Your task to perform on an android device: Clear all items from cart on newegg. Search for lg ultragear on newegg, select the first entry, and add it to the cart. Image 0: 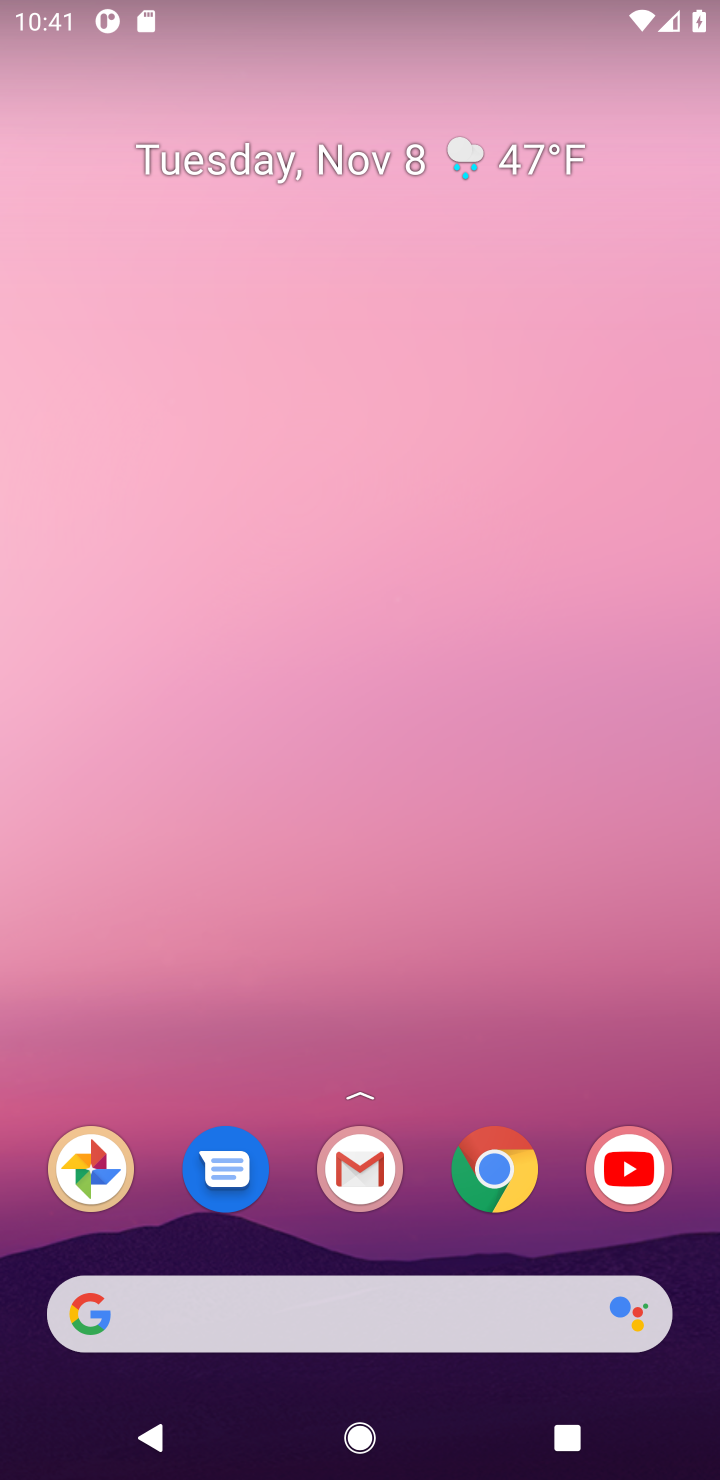
Step 0: click (499, 1165)
Your task to perform on an android device: Clear all items from cart on newegg. Search for lg ultragear on newegg, select the first entry, and add it to the cart. Image 1: 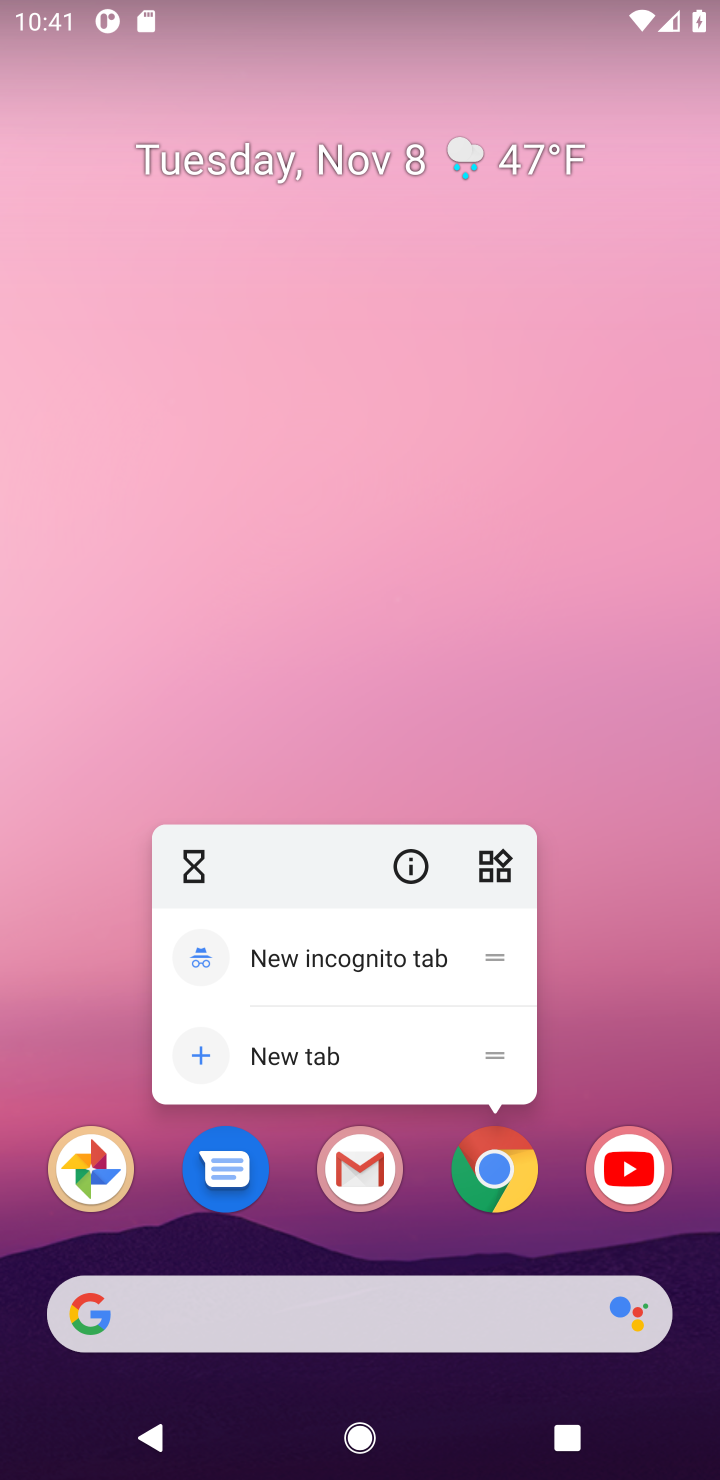
Step 1: click (499, 1165)
Your task to perform on an android device: Clear all items from cart on newegg. Search for lg ultragear on newegg, select the first entry, and add it to the cart. Image 2: 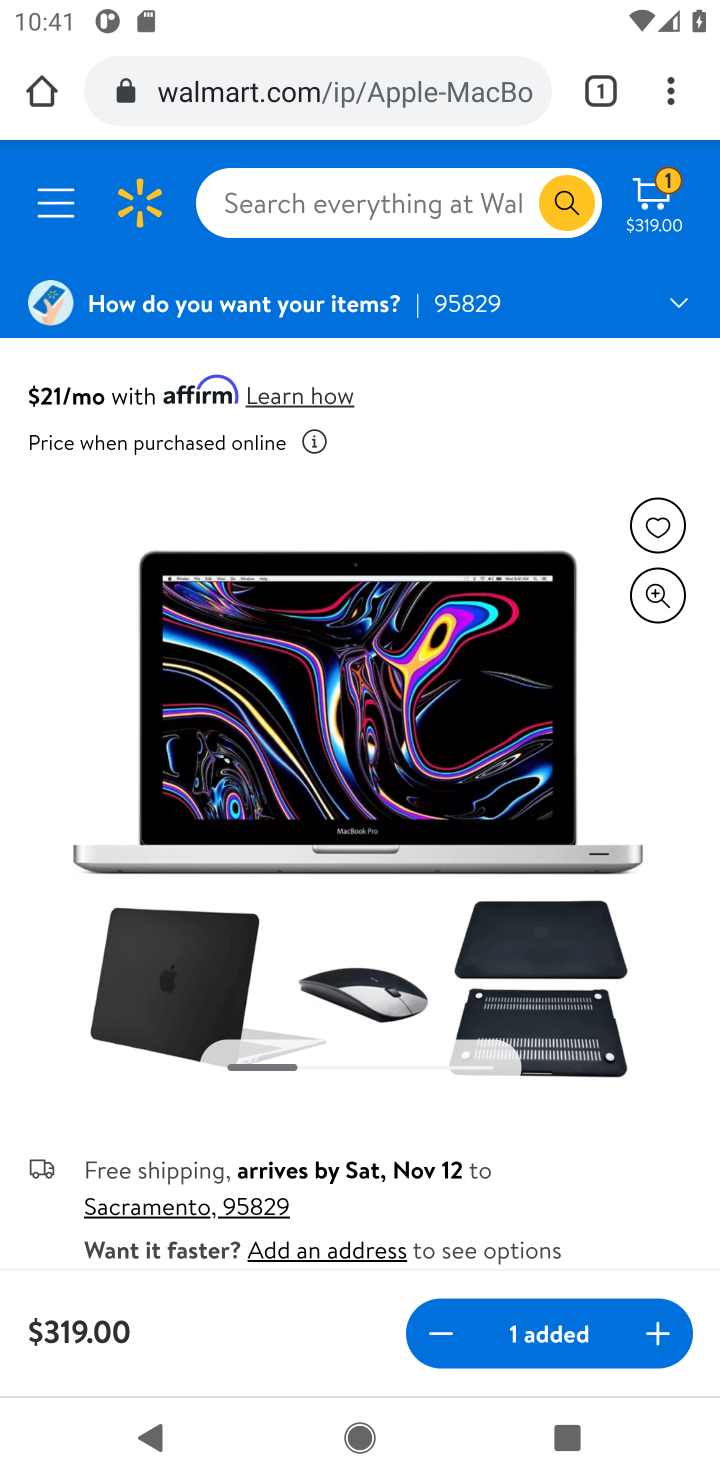
Step 2: click (471, 83)
Your task to perform on an android device: Clear all items from cart on newegg. Search for lg ultragear on newegg, select the first entry, and add it to the cart. Image 3: 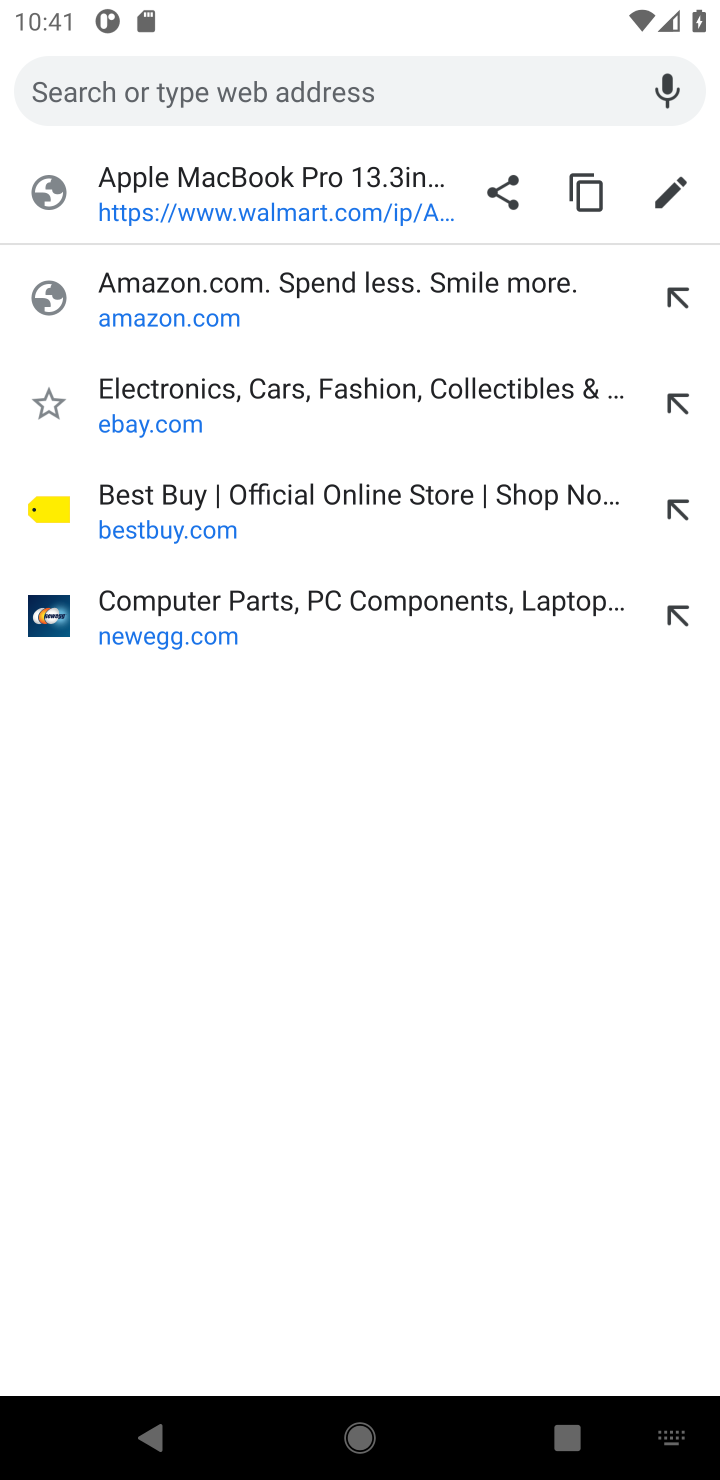
Step 3: press enter
Your task to perform on an android device: Clear all items from cart on newegg. Search for lg ultragear on newegg, select the first entry, and add it to the cart. Image 4: 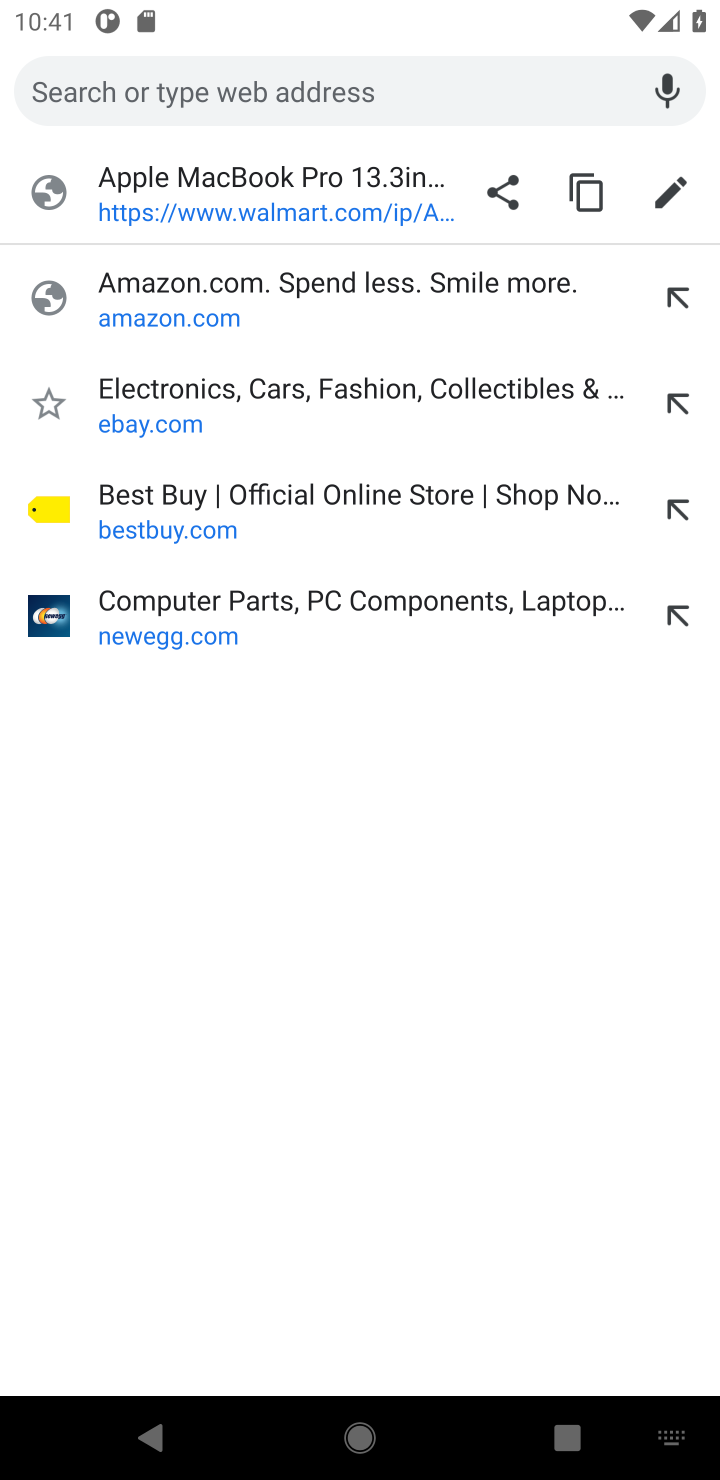
Step 4: type "newegg"
Your task to perform on an android device: Clear all items from cart on newegg. Search for lg ultragear on newegg, select the first entry, and add it to the cart. Image 5: 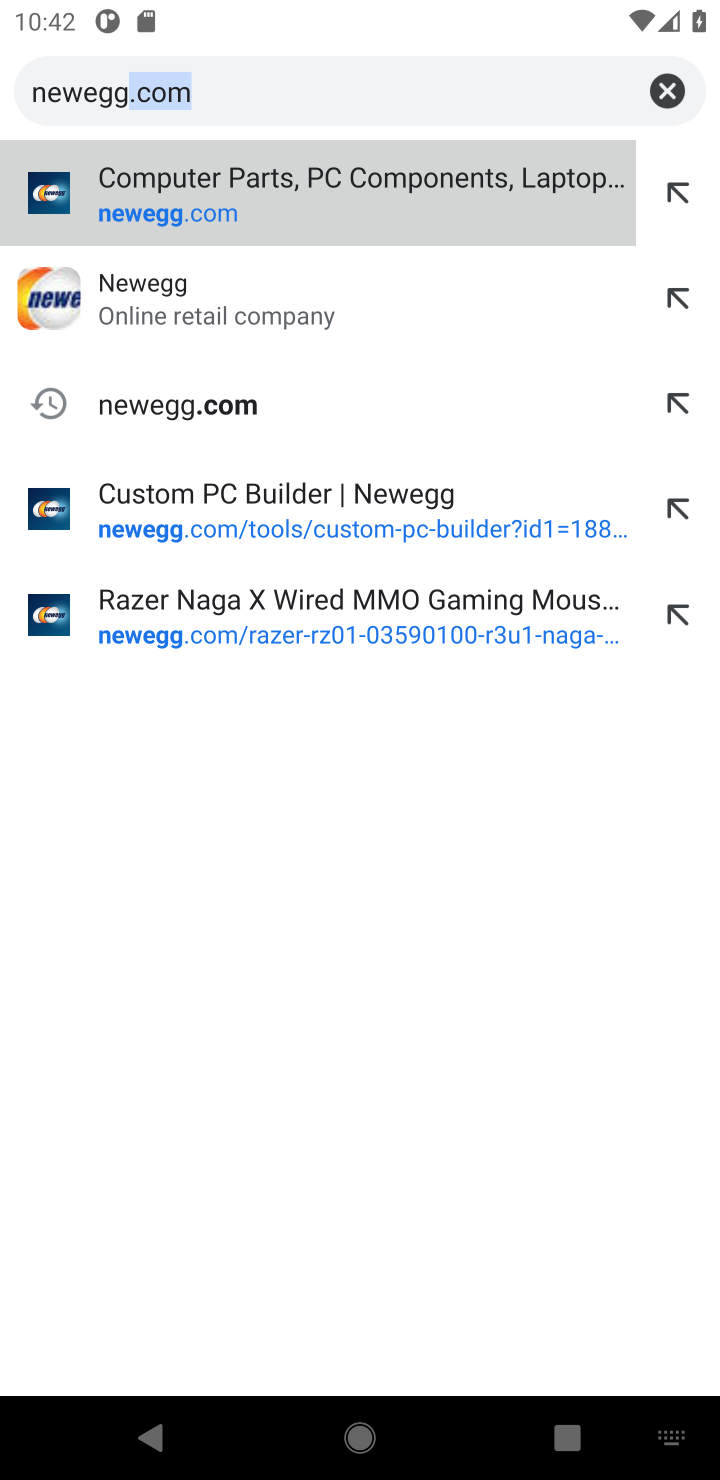
Step 5: click (405, 65)
Your task to perform on an android device: Clear all items from cart on newegg. Search for lg ultragear on newegg, select the first entry, and add it to the cart. Image 6: 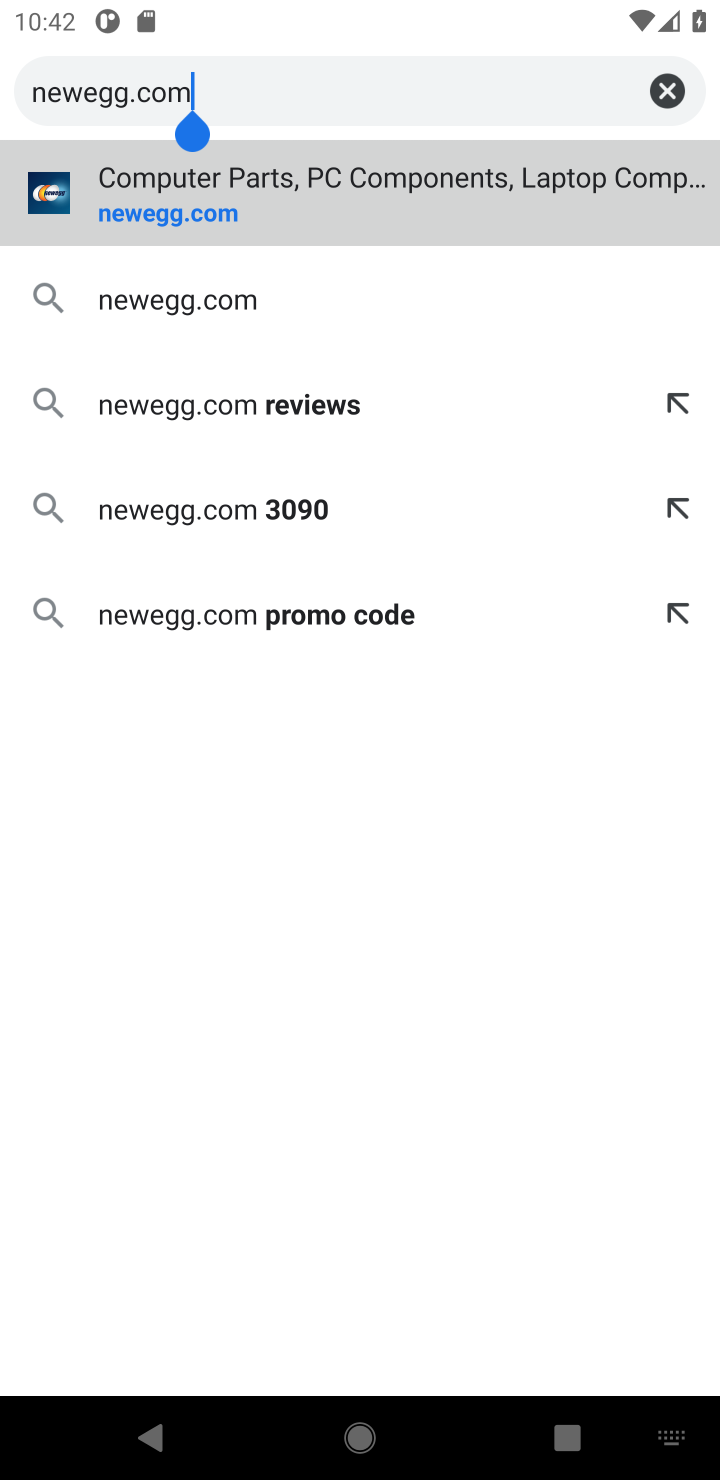
Step 6: click (214, 297)
Your task to perform on an android device: Clear all items from cart on newegg. Search for lg ultragear on newegg, select the first entry, and add it to the cart. Image 7: 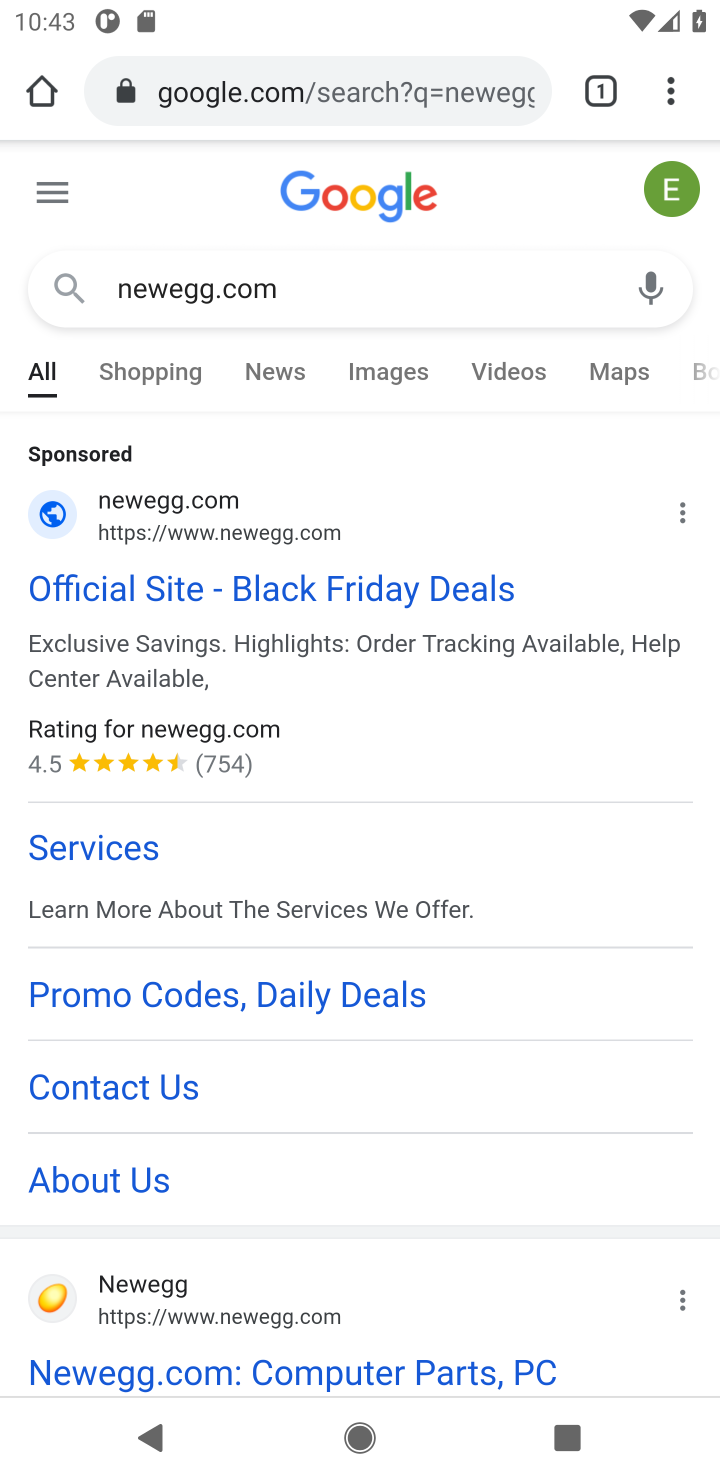
Step 7: click (219, 533)
Your task to perform on an android device: Clear all items from cart on newegg. Search for lg ultragear on newegg, select the first entry, and add it to the cart. Image 8: 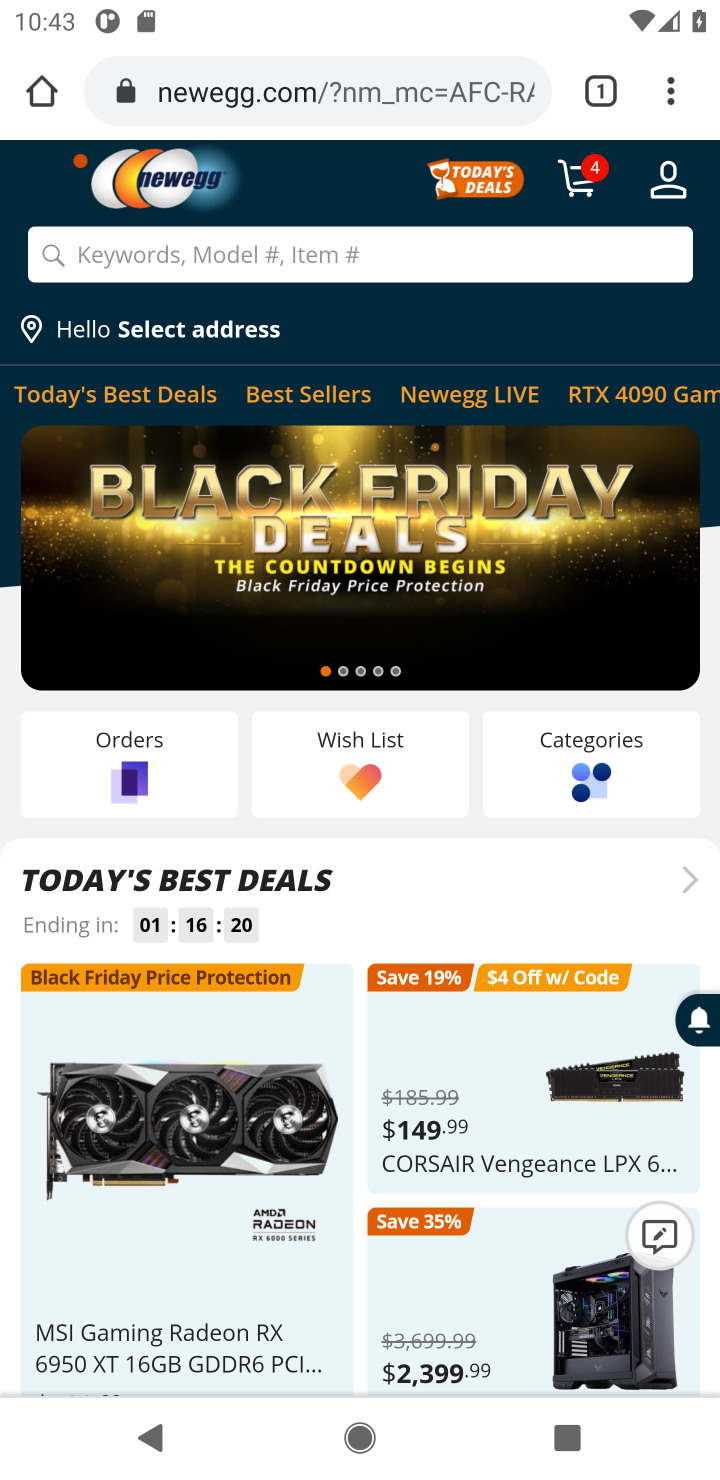
Step 8: click (572, 170)
Your task to perform on an android device: Clear all items from cart on newegg. Search for lg ultragear on newegg, select the first entry, and add it to the cart. Image 9: 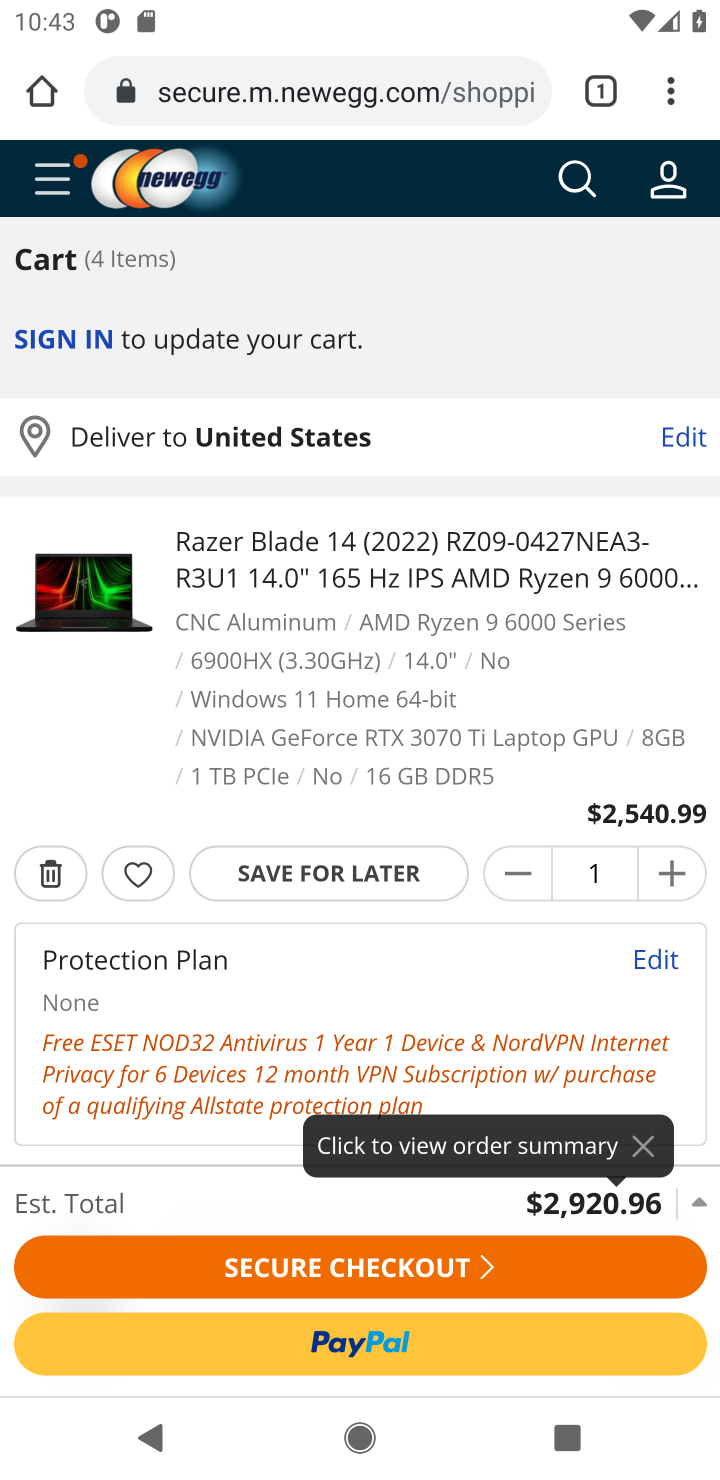
Step 9: click (39, 866)
Your task to perform on an android device: Clear all items from cart on newegg. Search for lg ultragear on newegg, select the first entry, and add it to the cart. Image 10: 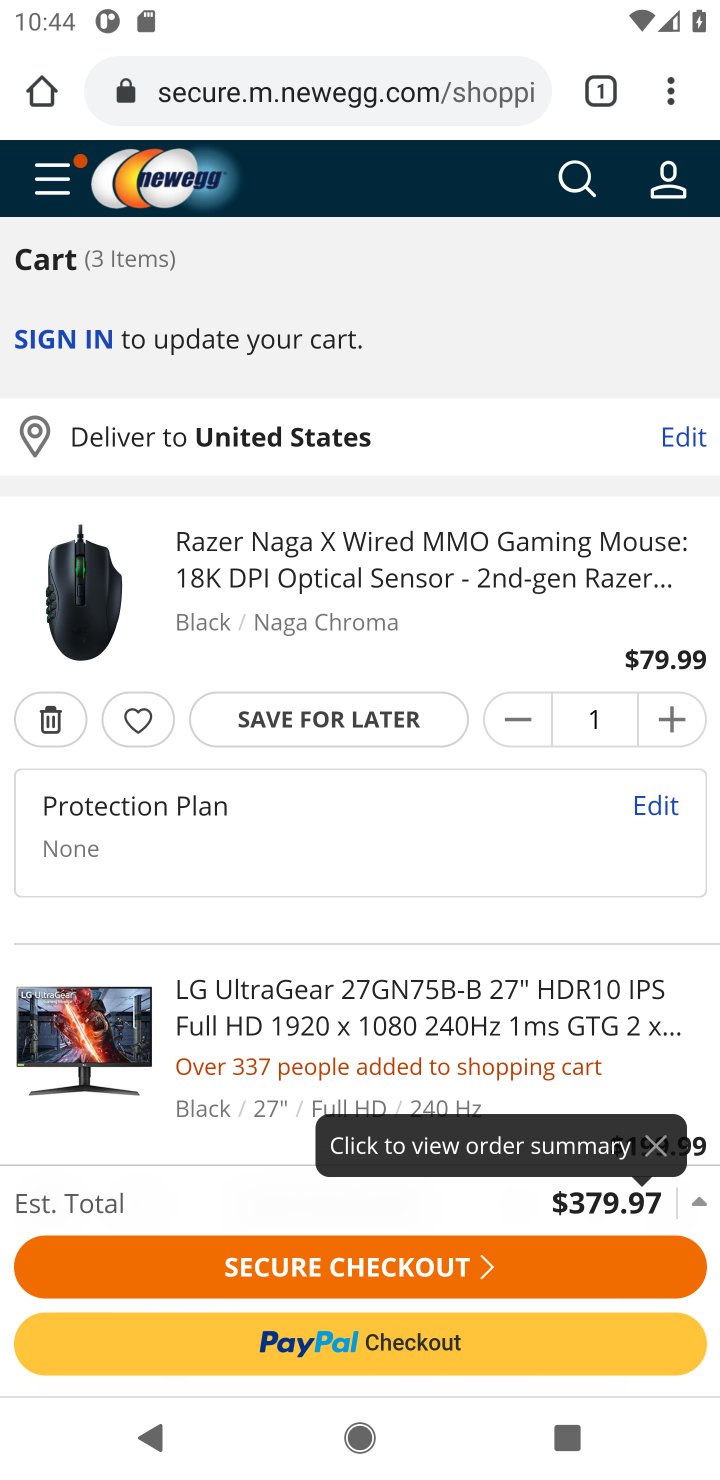
Step 10: click (566, 170)
Your task to perform on an android device: Clear all items from cart on newegg. Search for lg ultragear on newegg, select the first entry, and add it to the cart. Image 11: 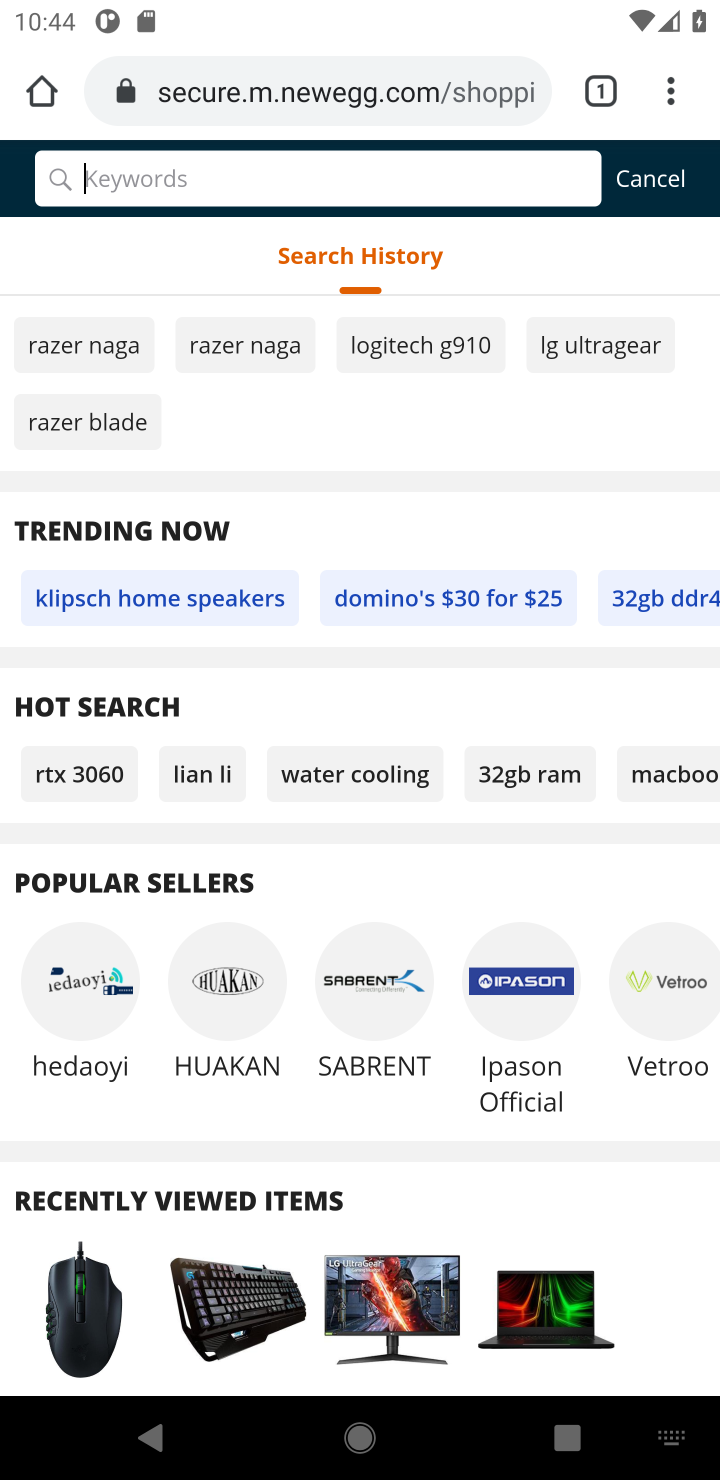
Step 11: type "lg ultragear"
Your task to perform on an android device: Clear all items from cart on newegg. Search for lg ultragear on newegg, select the first entry, and add it to the cart. Image 12: 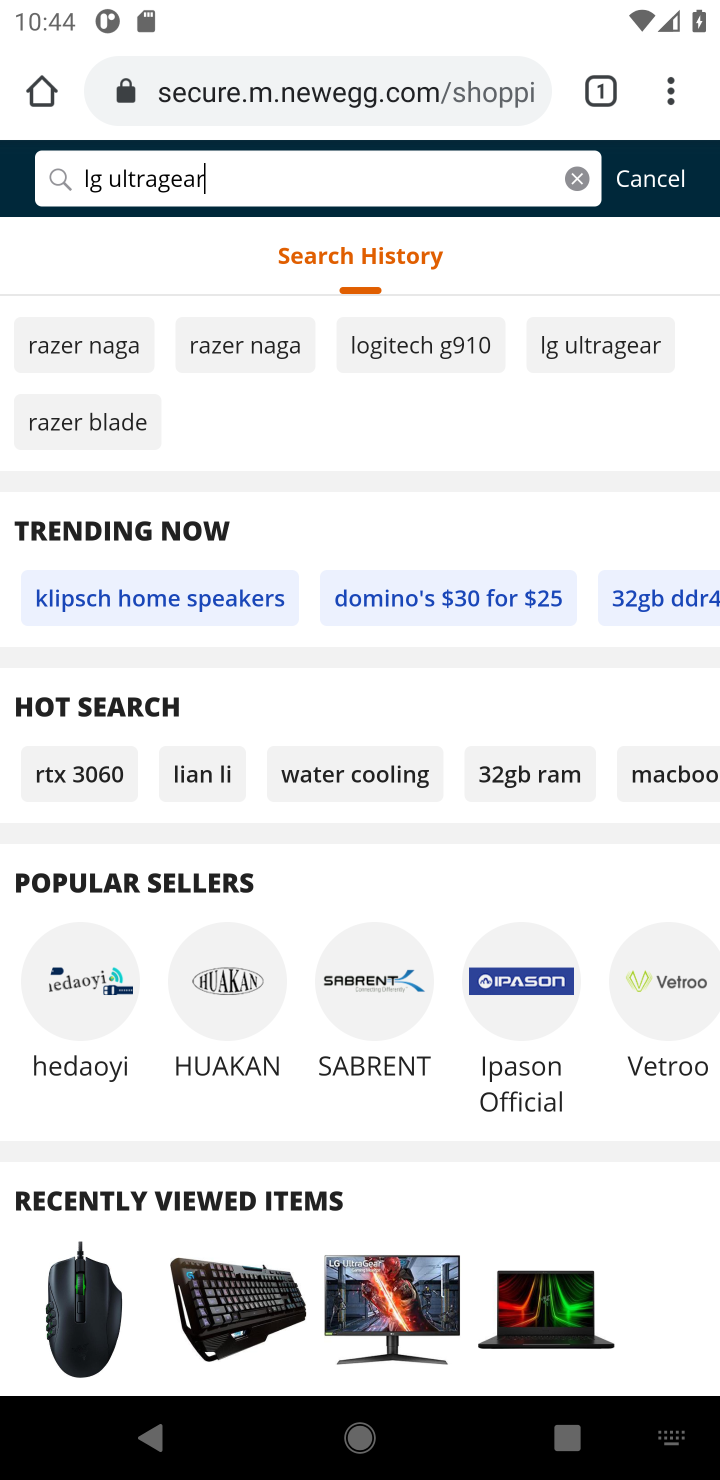
Step 12: press enter
Your task to perform on an android device: Clear all items from cart on newegg. Search for lg ultragear on newegg, select the first entry, and add it to the cart. Image 13: 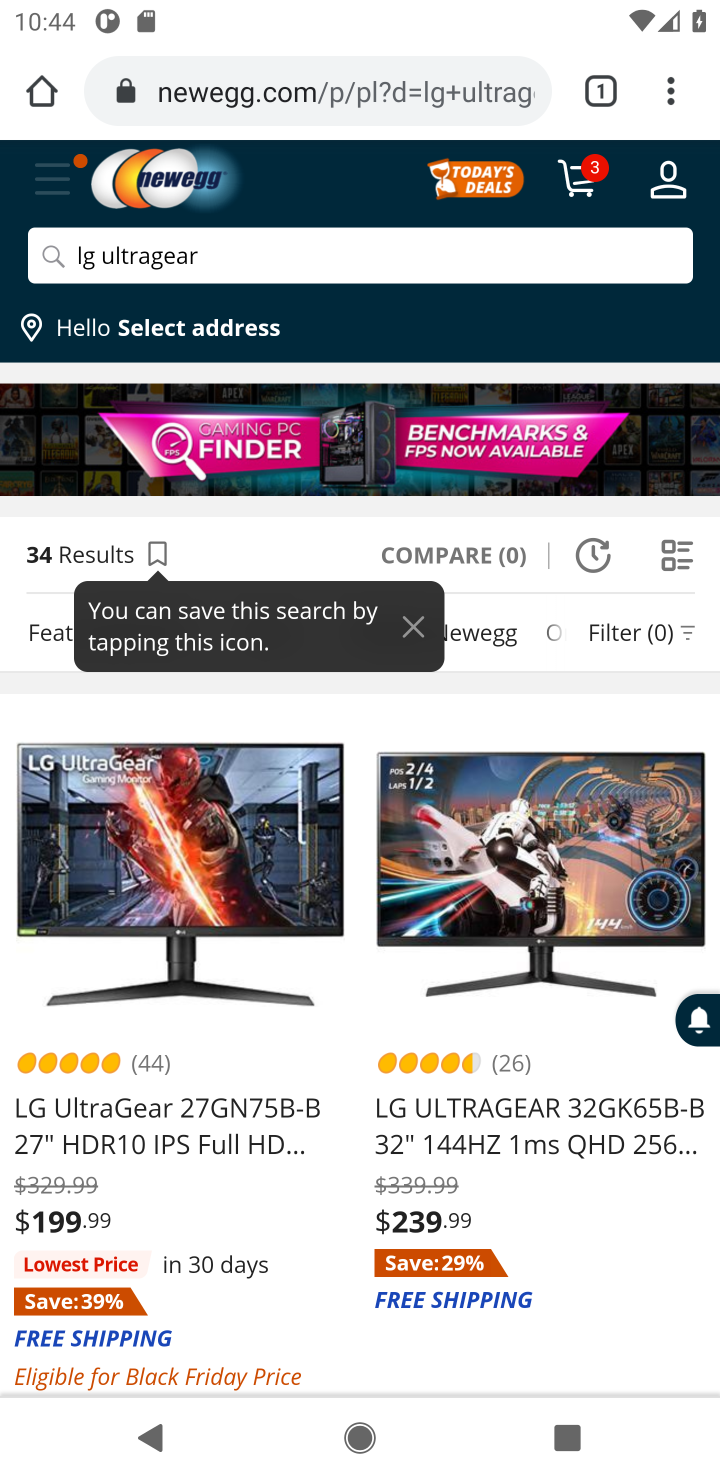
Step 13: click (238, 839)
Your task to perform on an android device: Clear all items from cart on newegg. Search for lg ultragear on newegg, select the first entry, and add it to the cart. Image 14: 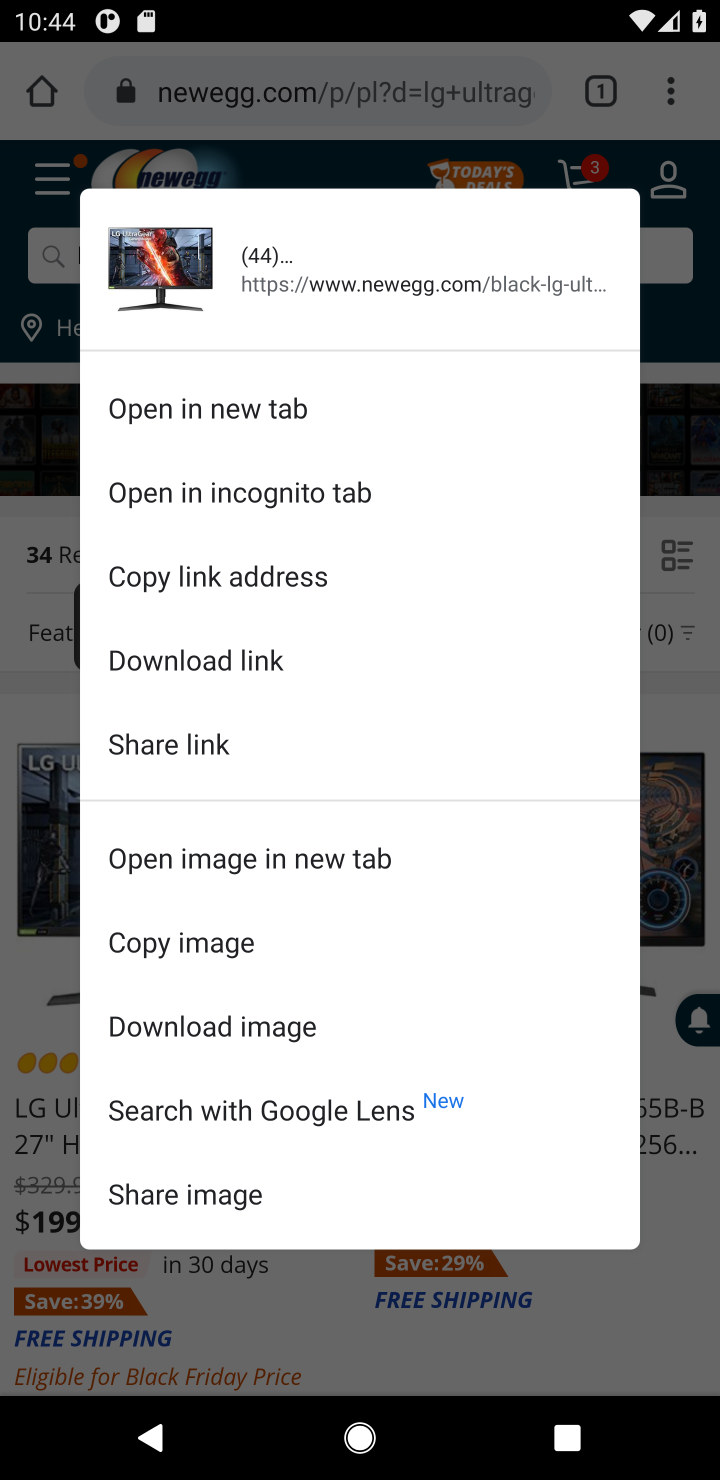
Step 14: click (55, 827)
Your task to perform on an android device: Clear all items from cart on newegg. Search for lg ultragear on newegg, select the first entry, and add it to the cart. Image 15: 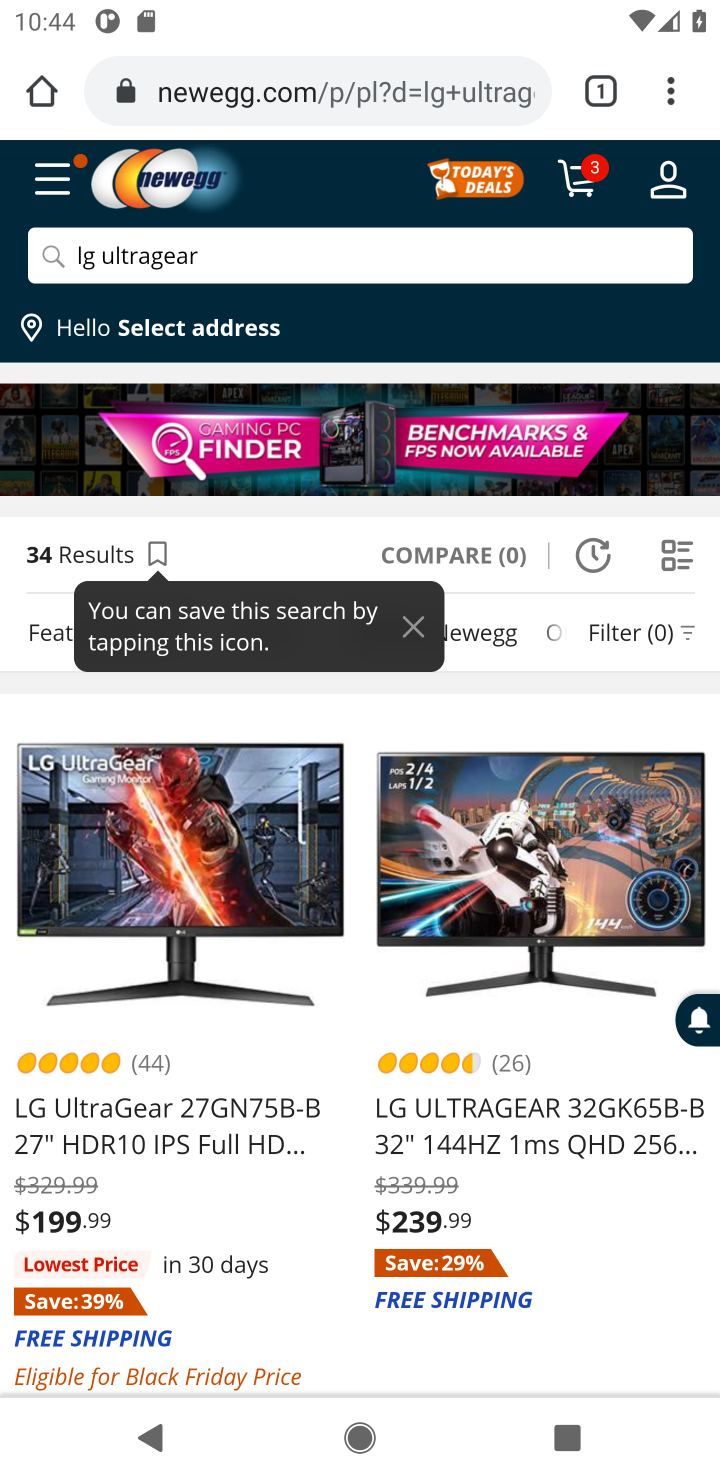
Step 15: click (55, 827)
Your task to perform on an android device: Clear all items from cart on newegg. Search for lg ultragear on newegg, select the first entry, and add it to the cart. Image 16: 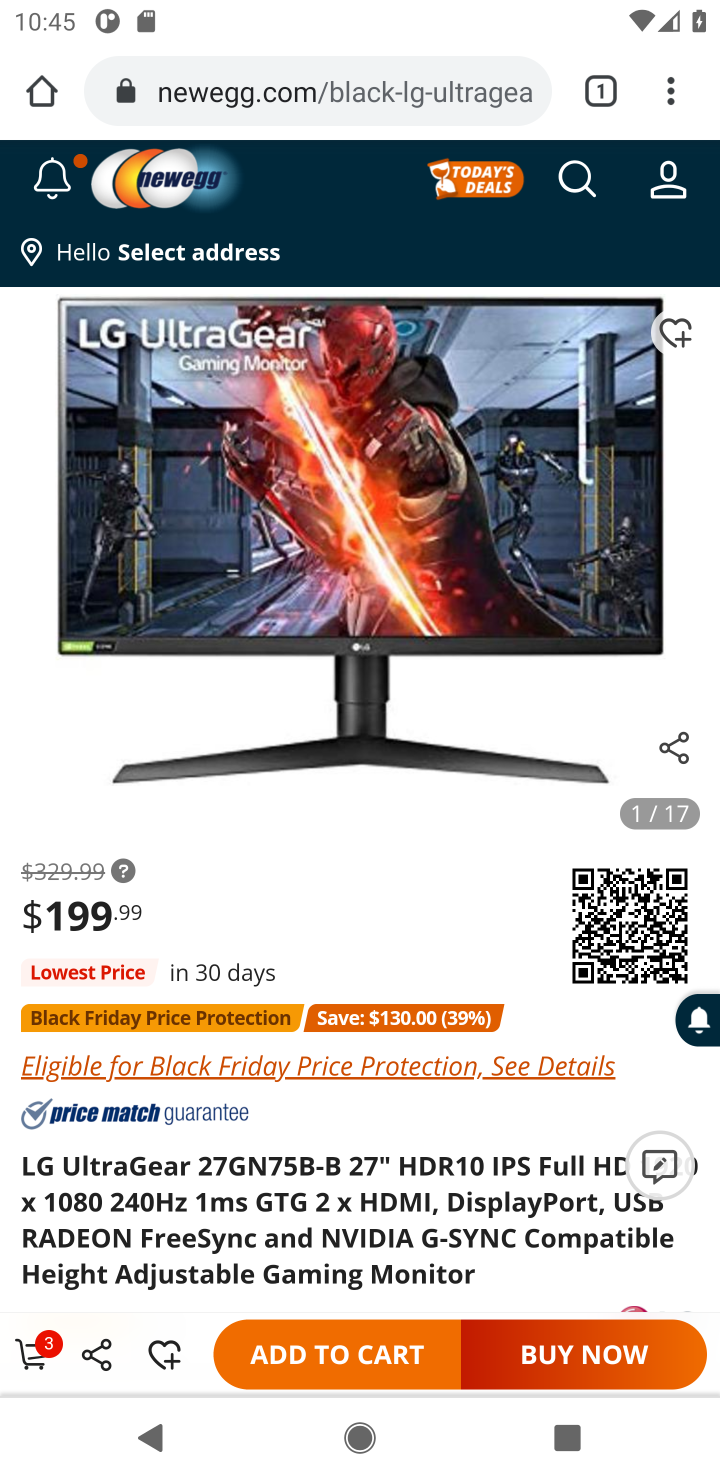
Step 16: click (373, 1353)
Your task to perform on an android device: Clear all items from cart on newegg. Search for lg ultragear on newegg, select the first entry, and add it to the cart. Image 17: 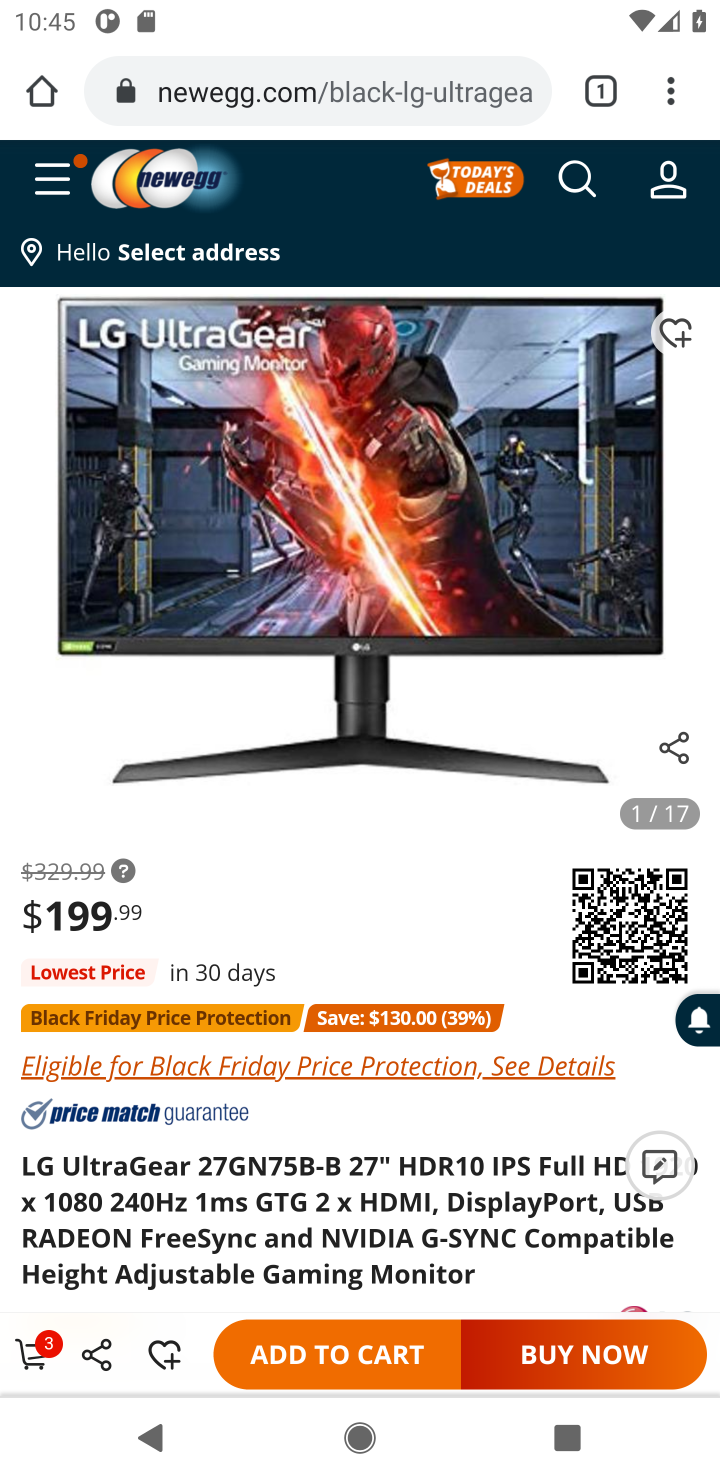
Step 17: click (361, 1350)
Your task to perform on an android device: Clear all items from cart on newegg. Search for lg ultragear on newegg, select the first entry, and add it to the cart. Image 18: 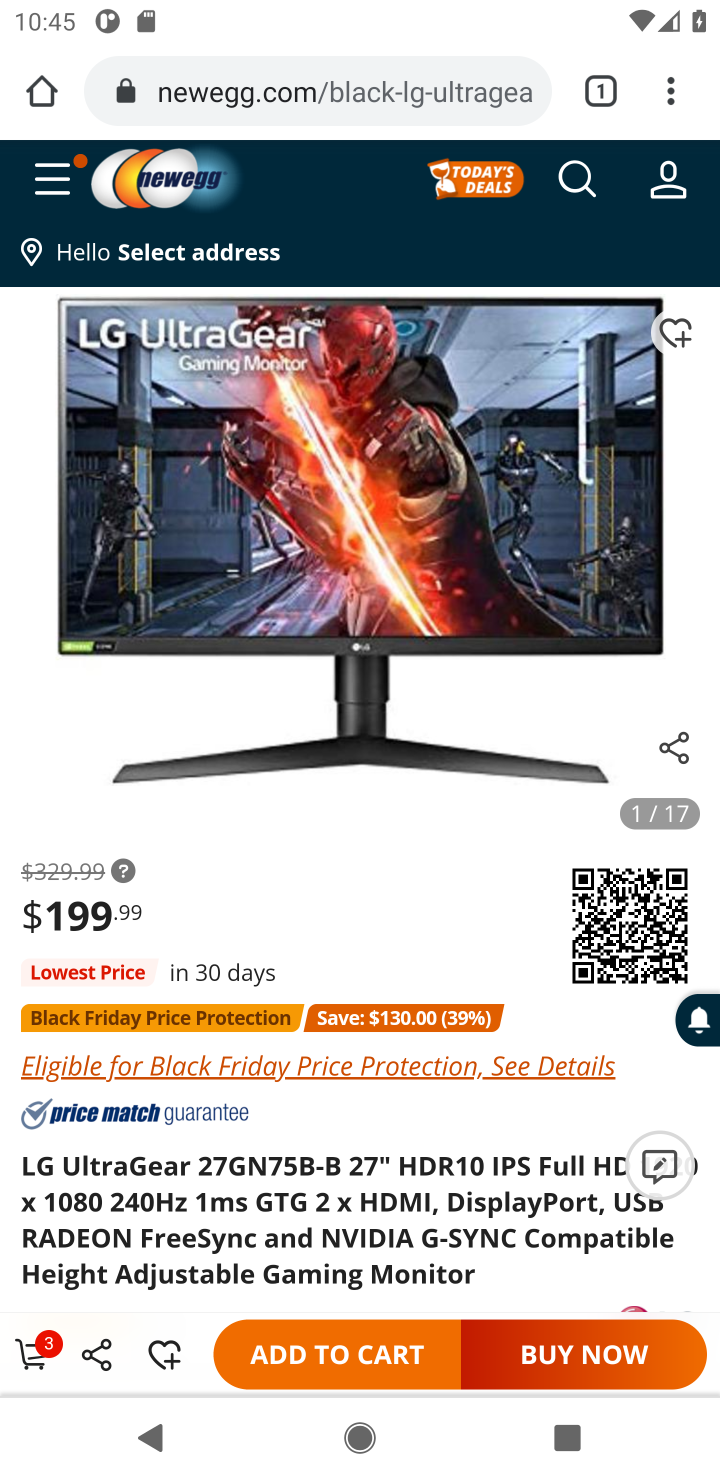
Step 18: click (368, 1345)
Your task to perform on an android device: Clear all items from cart on newegg. Search for lg ultragear on newegg, select the first entry, and add it to the cart. Image 19: 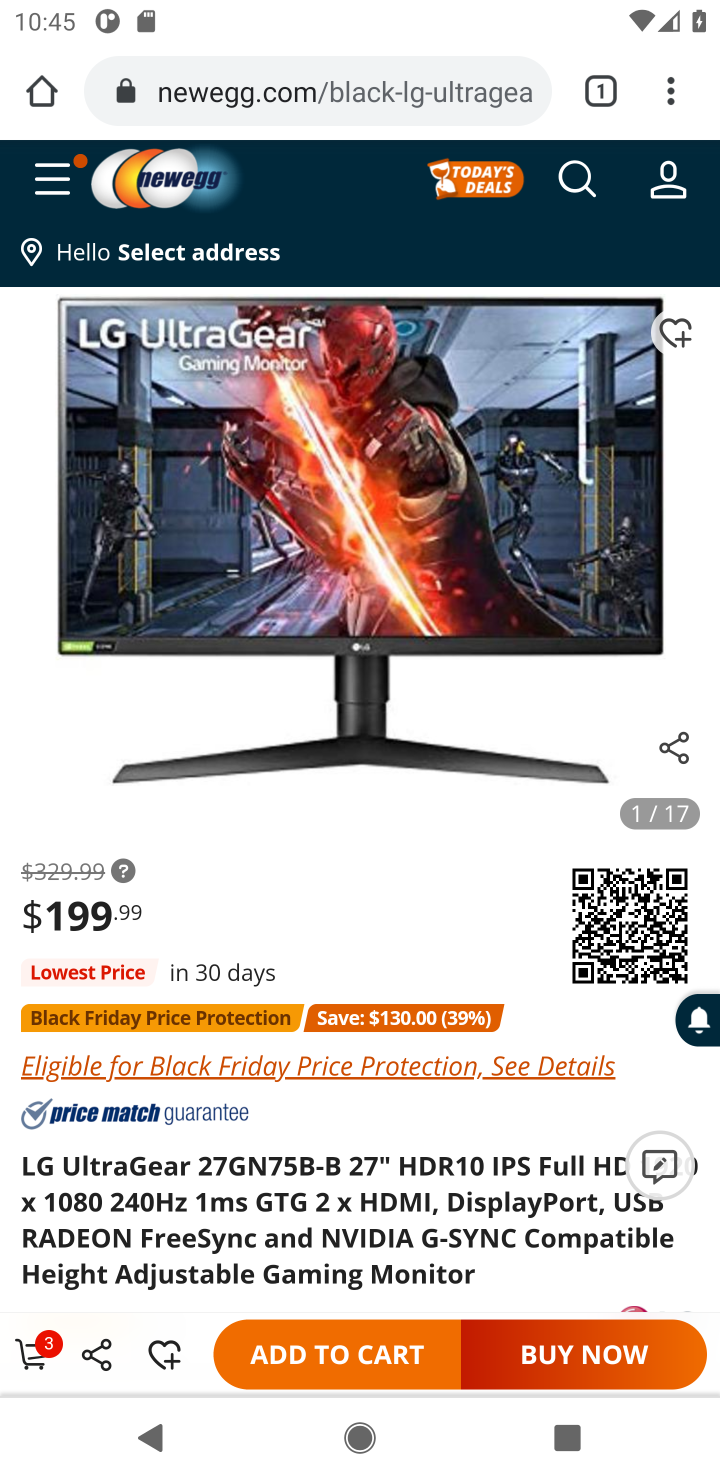
Step 19: click (312, 1352)
Your task to perform on an android device: Clear all items from cart on newegg. Search for lg ultragear on newegg, select the first entry, and add it to the cart. Image 20: 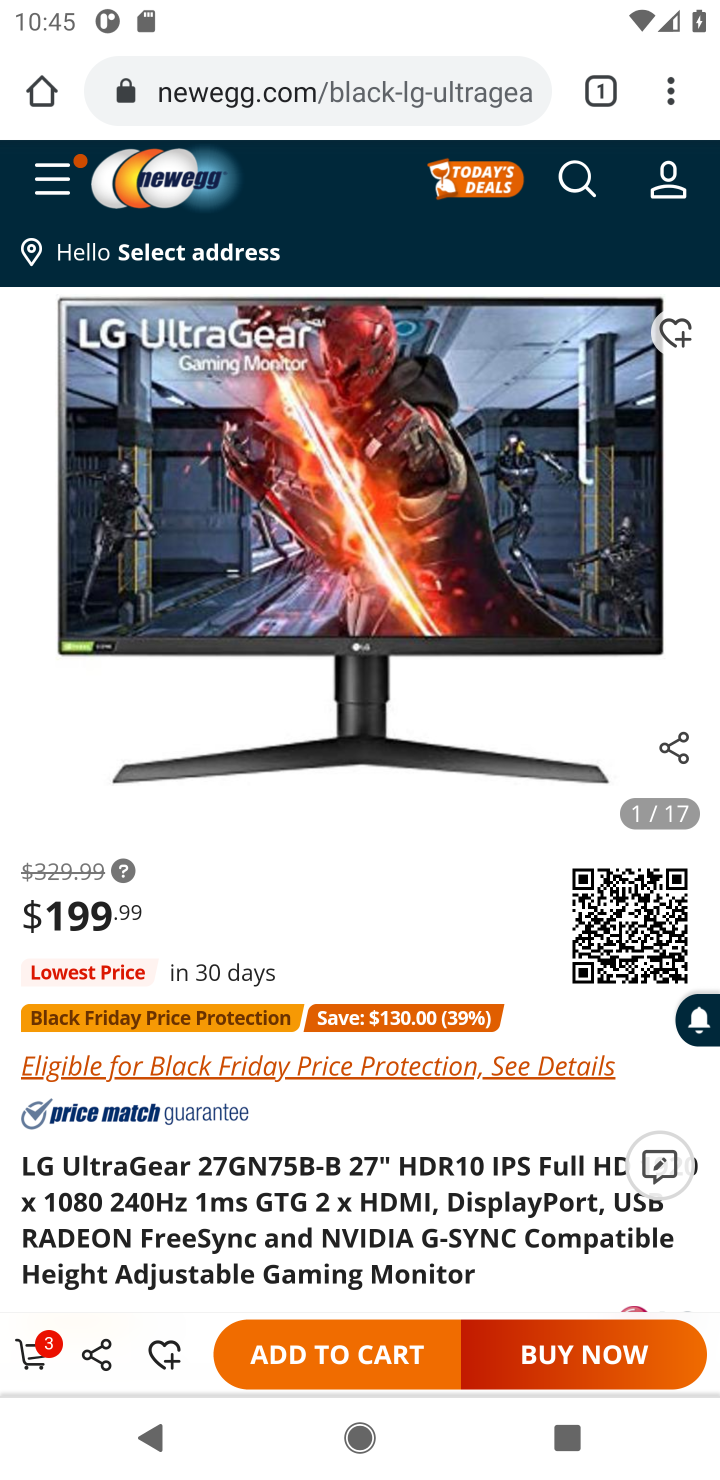
Step 20: click (46, 1353)
Your task to perform on an android device: Clear all items from cart on newegg. Search for lg ultragear on newegg, select the first entry, and add it to the cart. Image 21: 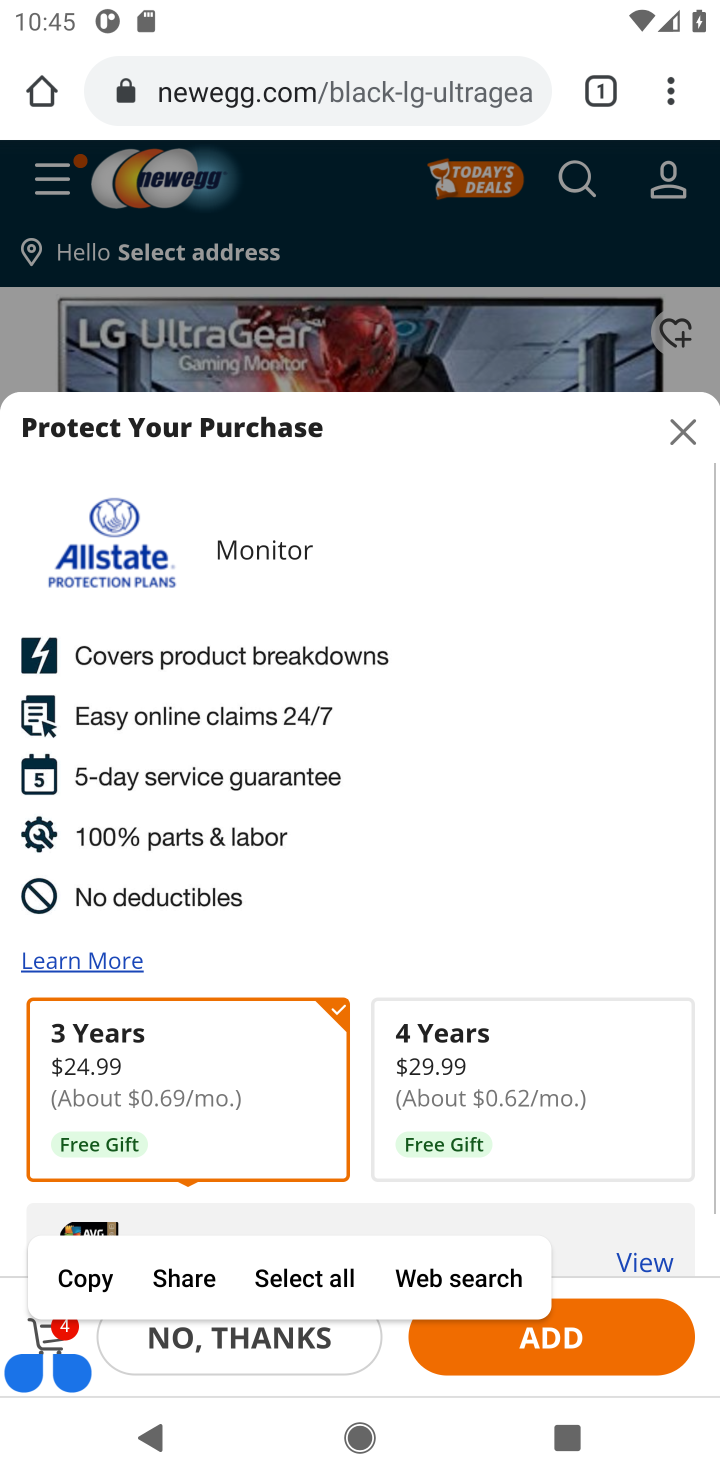
Step 21: task complete